Your task to perform on an android device: open app "Life360: Find Family & Friends" (install if not already installed) Image 0: 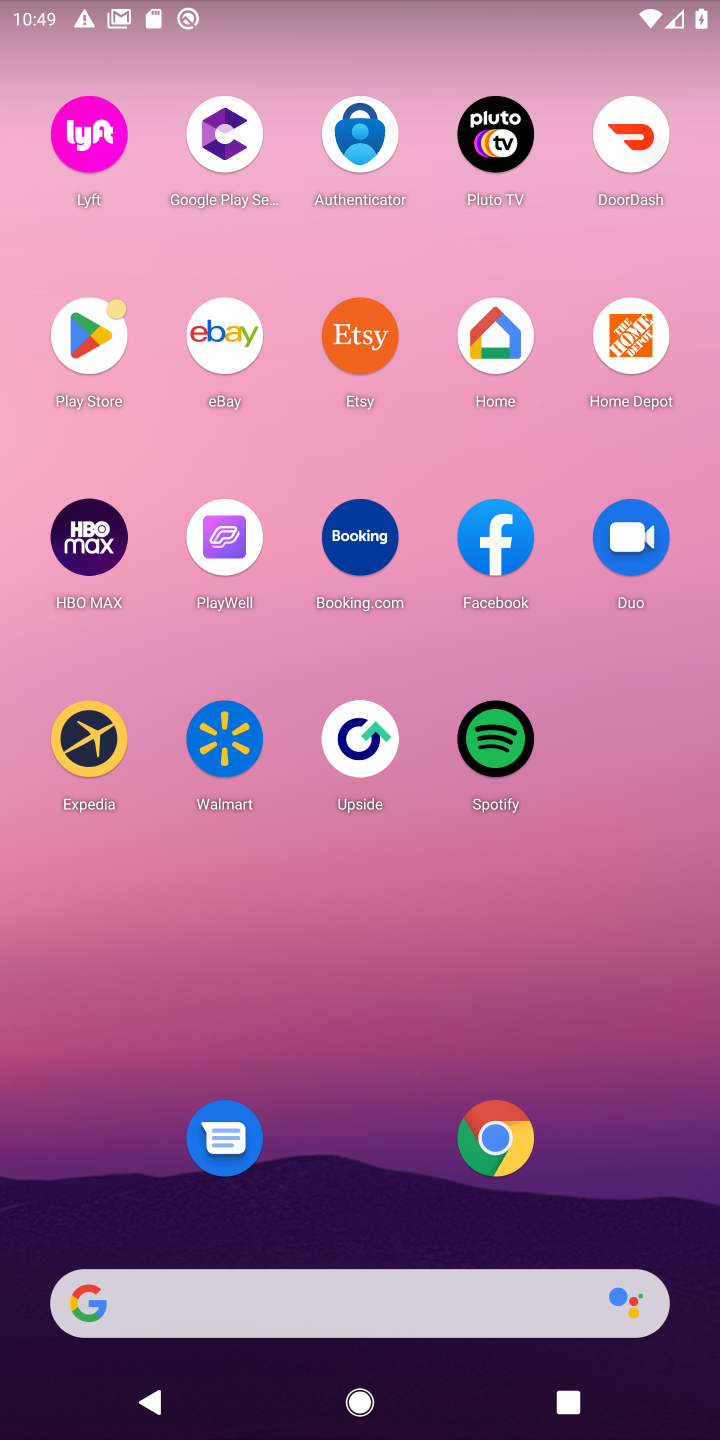
Step 0: press home button
Your task to perform on an android device: open app "Life360: Find Family & Friends" (install if not already installed) Image 1: 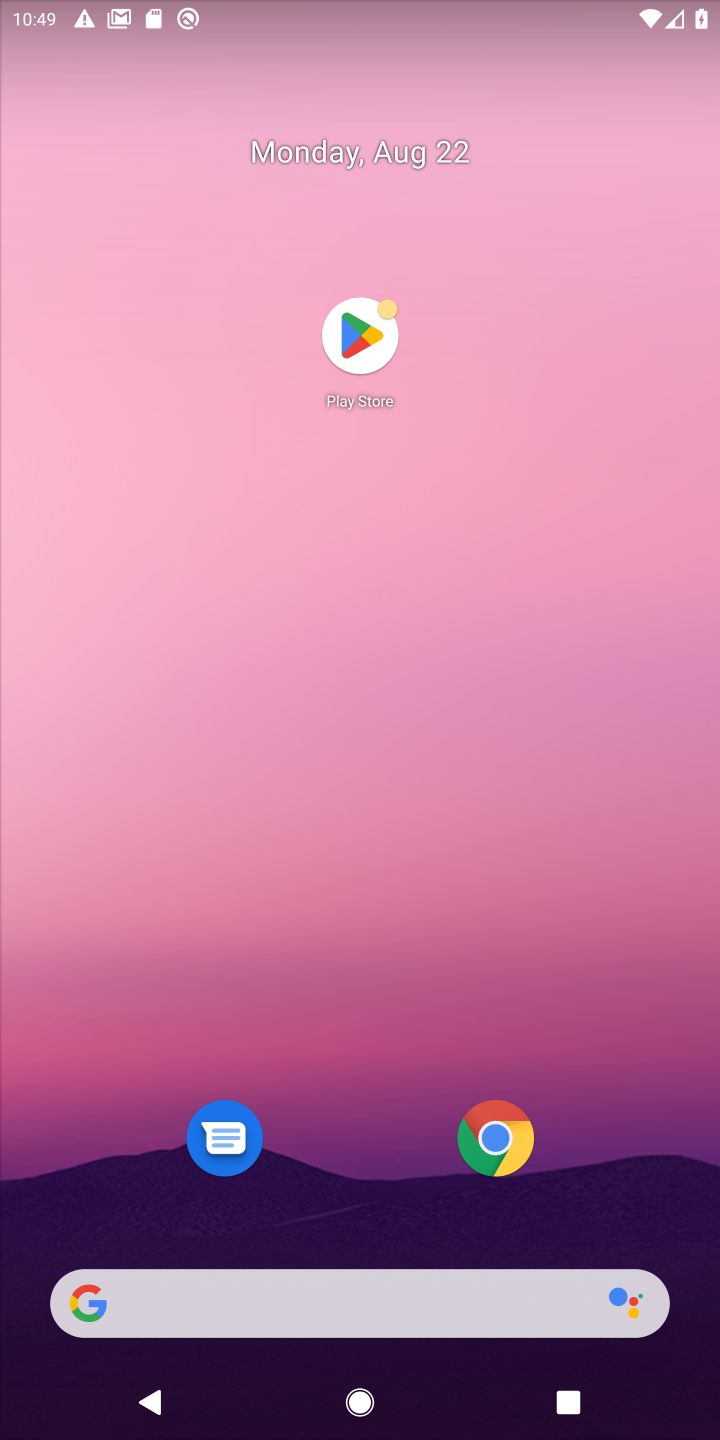
Step 1: click (364, 337)
Your task to perform on an android device: open app "Life360: Find Family & Friends" (install if not already installed) Image 2: 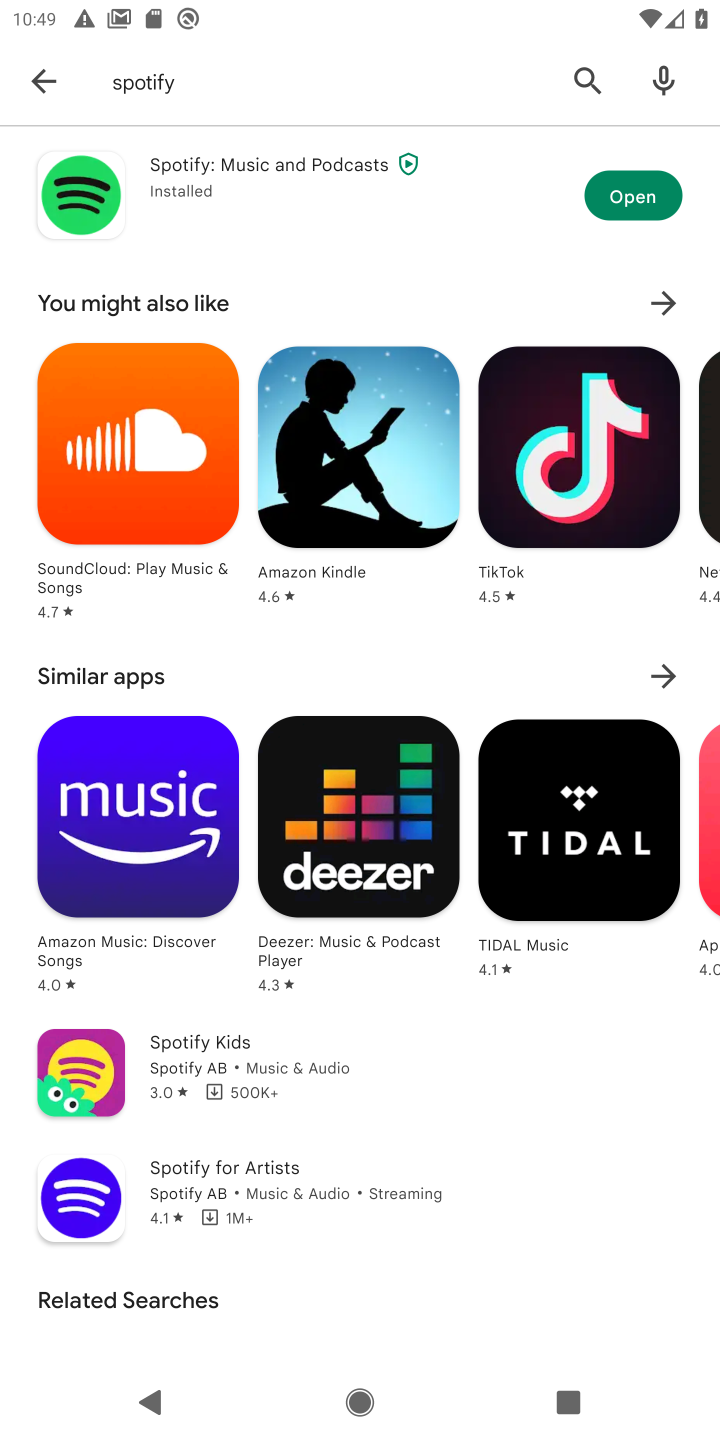
Step 2: click (589, 79)
Your task to perform on an android device: open app "Life360: Find Family & Friends" (install if not already installed) Image 3: 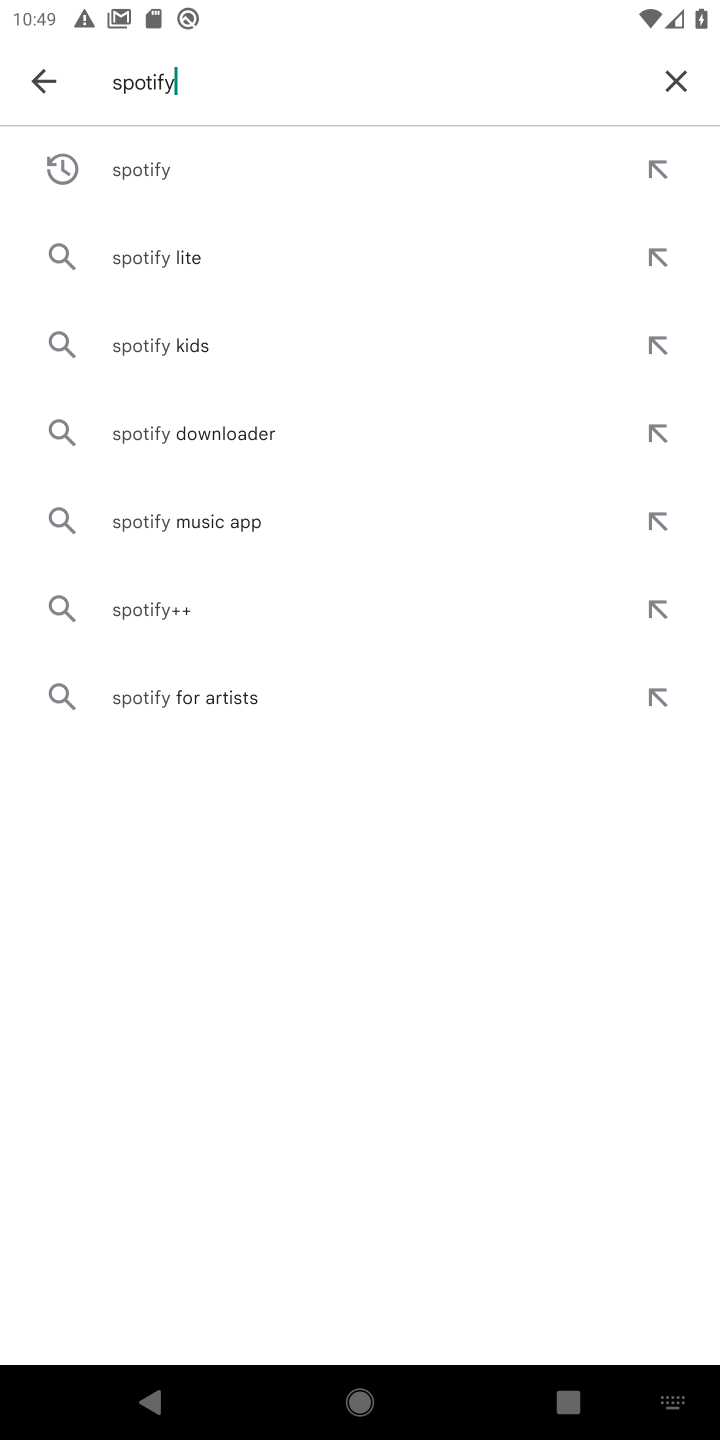
Step 3: click (681, 78)
Your task to perform on an android device: open app "Life360: Find Family & Friends" (install if not already installed) Image 4: 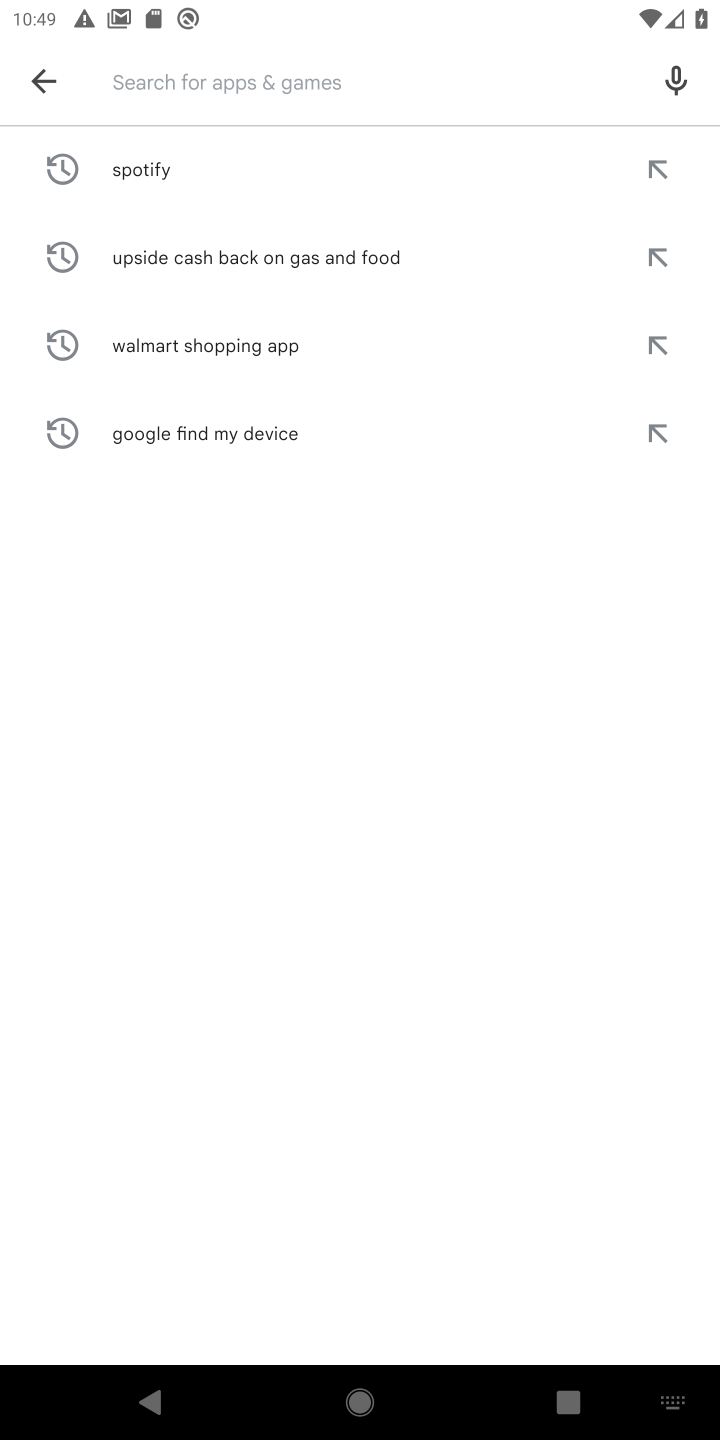
Step 4: type "Life360: Find Family & Friends"
Your task to perform on an android device: open app "Life360: Find Family & Friends" (install if not already installed) Image 5: 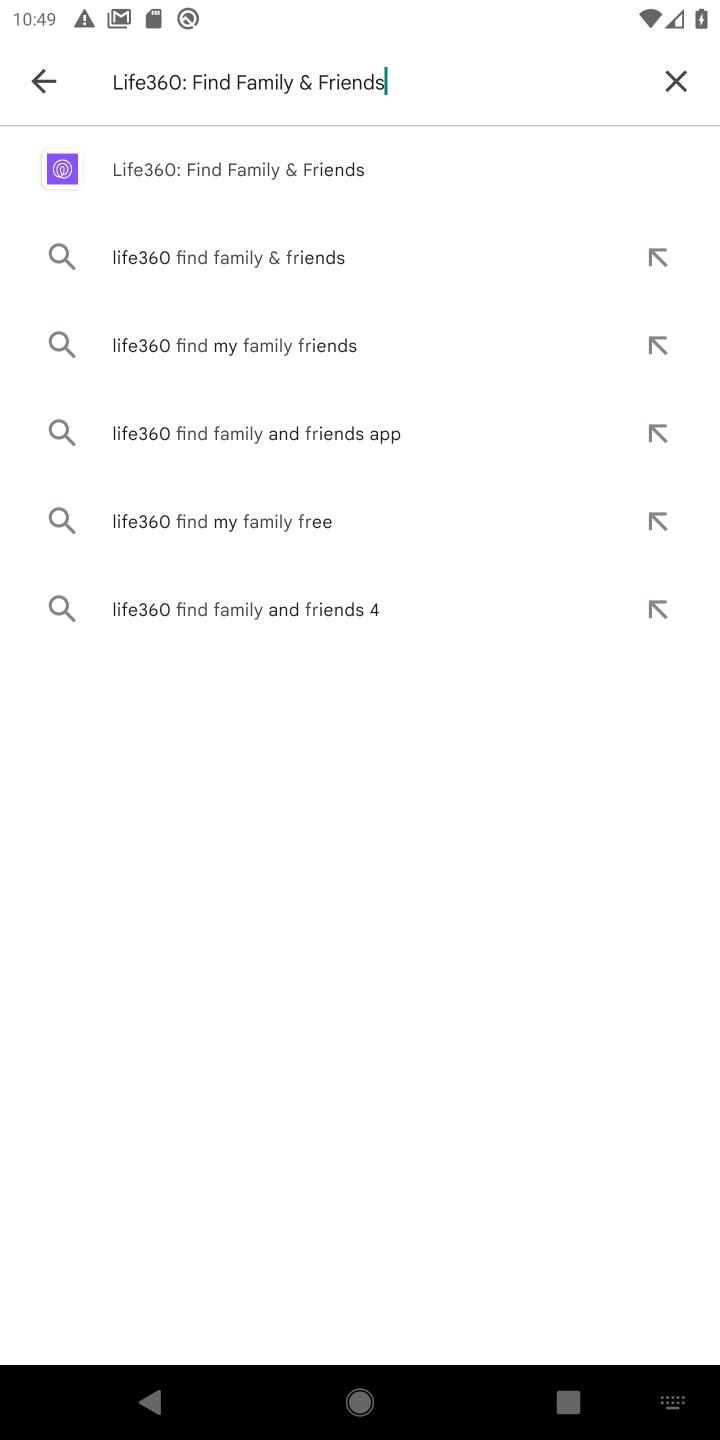
Step 5: type ""
Your task to perform on an android device: open app "Life360: Find Family & Friends" (install if not already installed) Image 6: 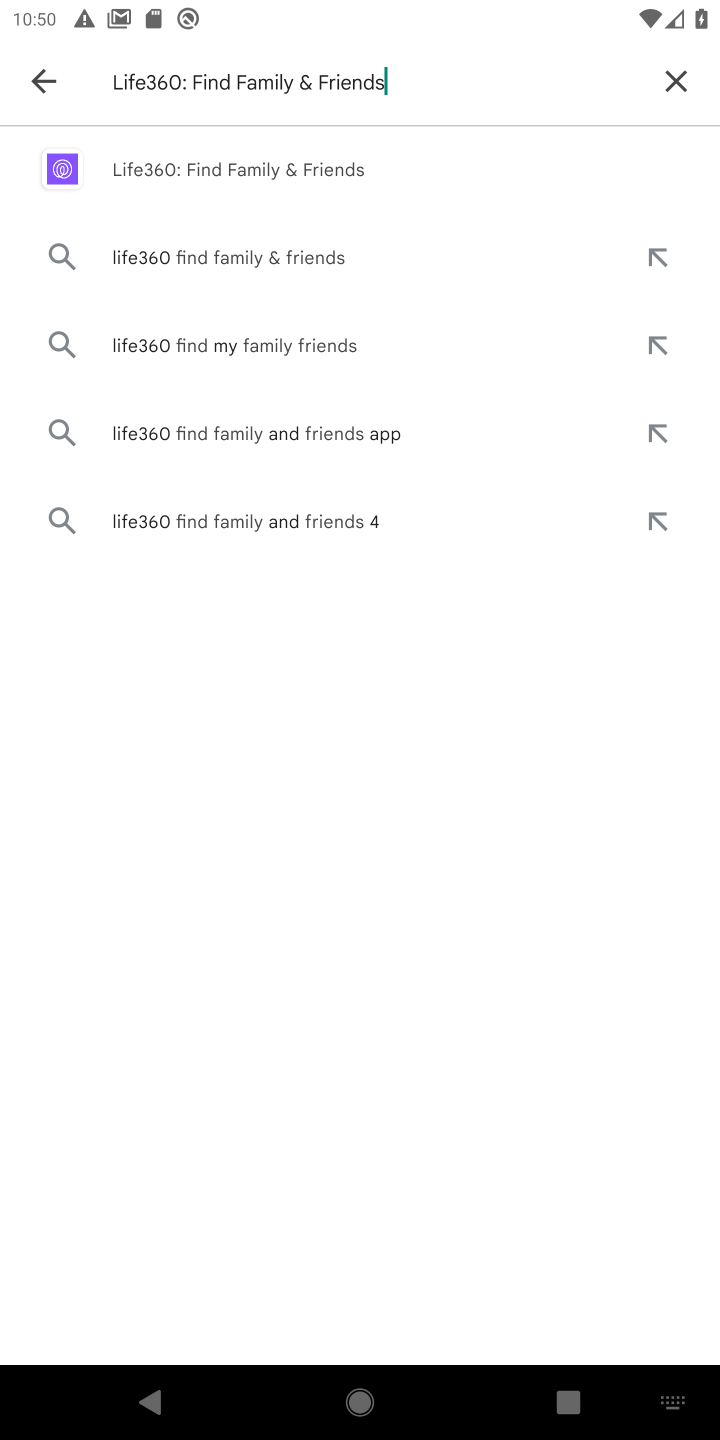
Step 6: click (215, 170)
Your task to perform on an android device: open app "Life360: Find Family & Friends" (install if not already installed) Image 7: 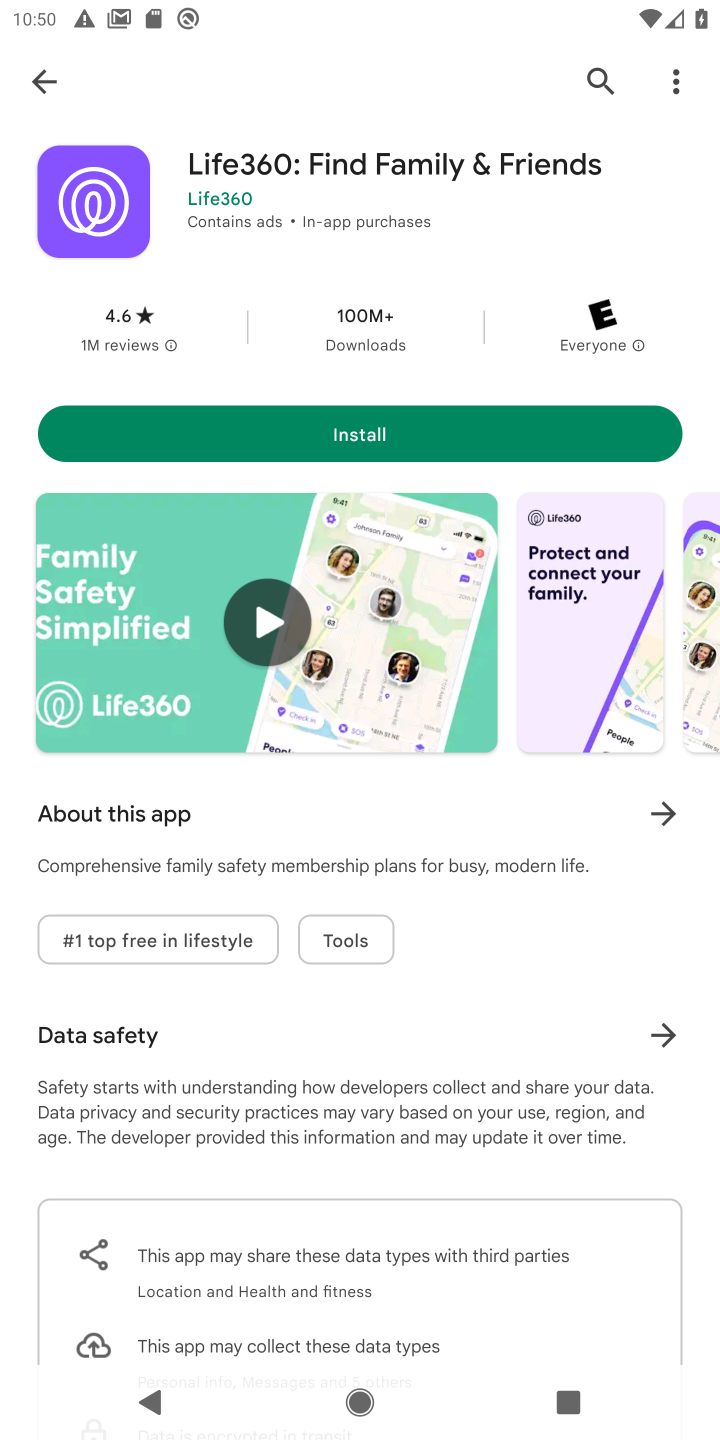
Step 7: click (243, 450)
Your task to perform on an android device: open app "Life360: Find Family & Friends" (install if not already installed) Image 8: 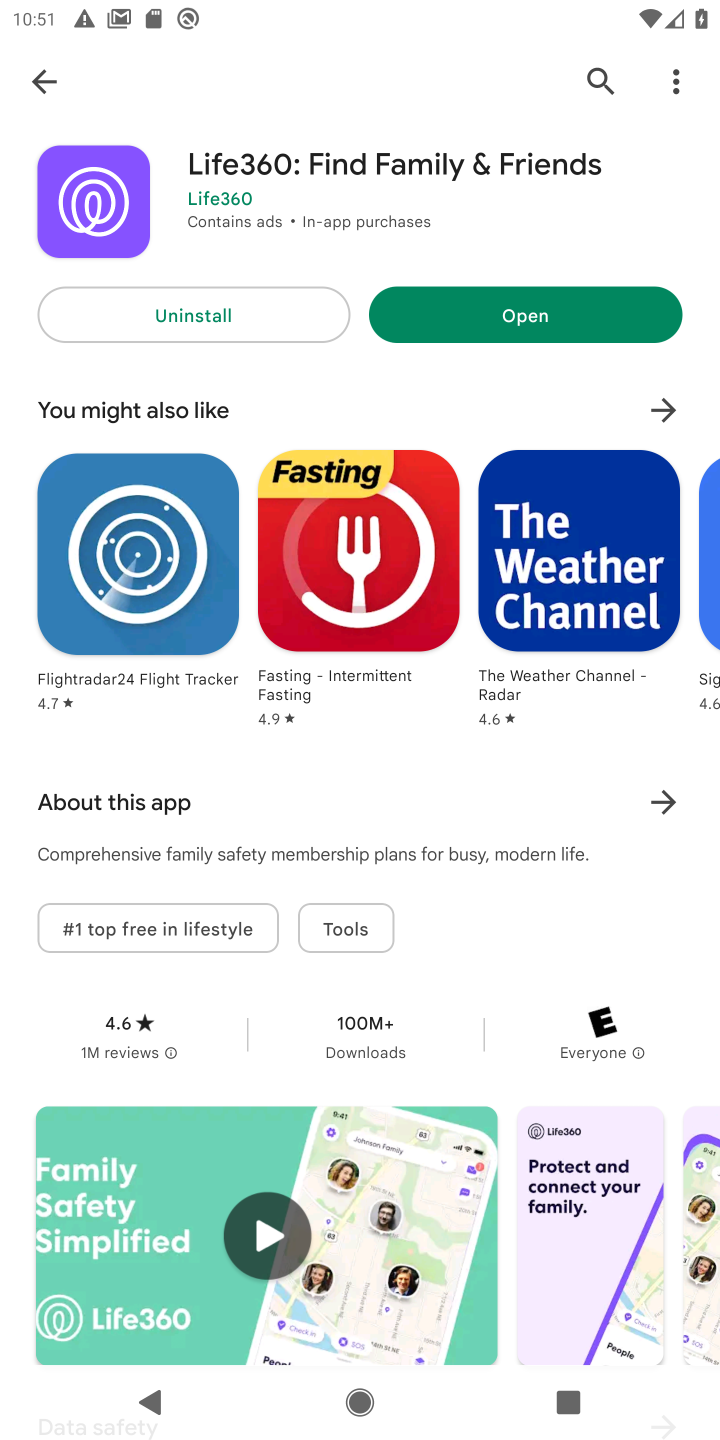
Step 8: click (517, 302)
Your task to perform on an android device: open app "Life360: Find Family & Friends" (install if not already installed) Image 9: 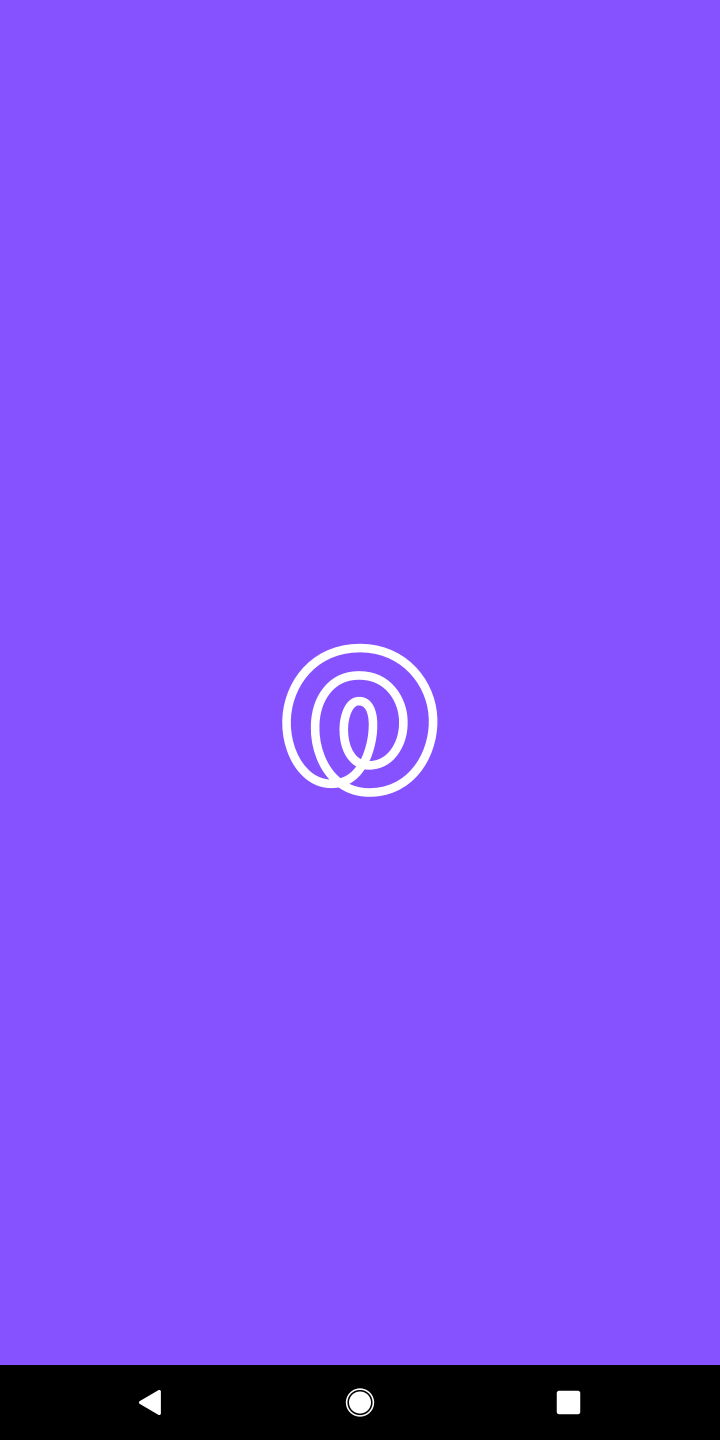
Step 9: task complete